Your task to perform on an android device: Go to Maps Image 0: 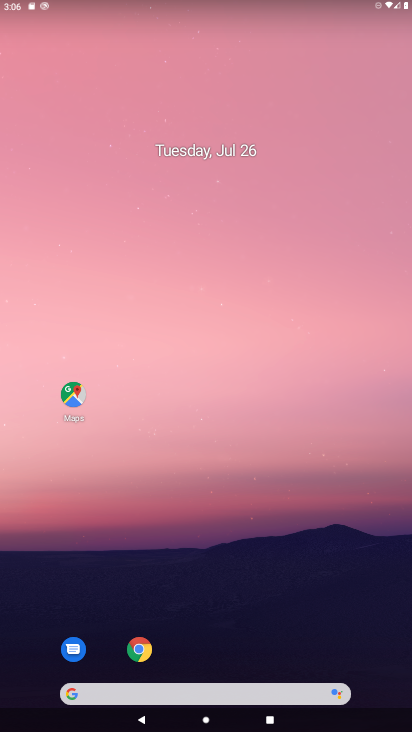
Step 0: drag from (210, 697) to (174, 156)
Your task to perform on an android device: Go to Maps Image 1: 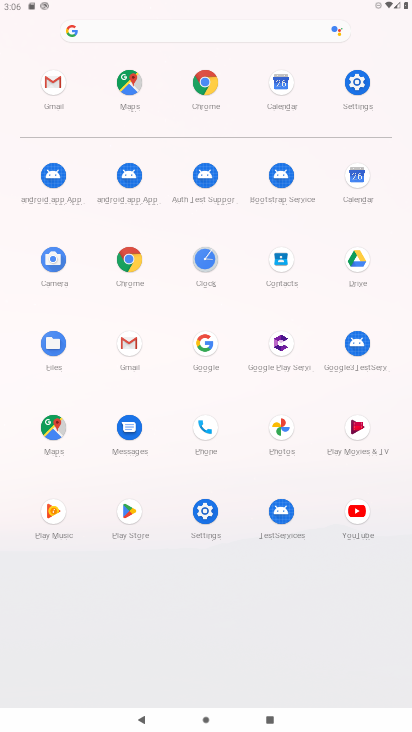
Step 1: click (53, 427)
Your task to perform on an android device: Go to Maps Image 2: 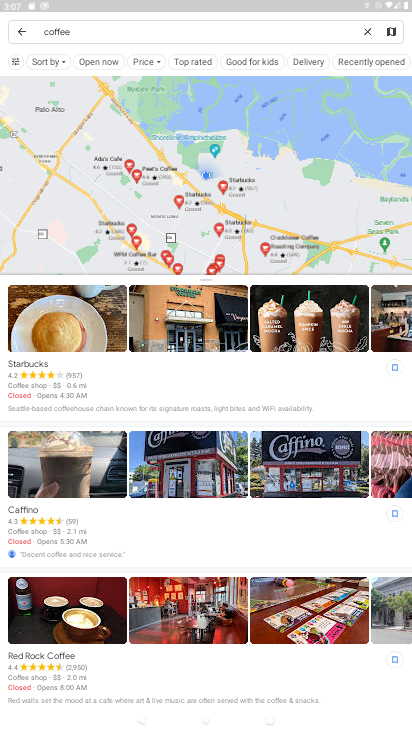
Step 2: task complete